Your task to perform on an android device: Is it going to rain this weekend? Image 0: 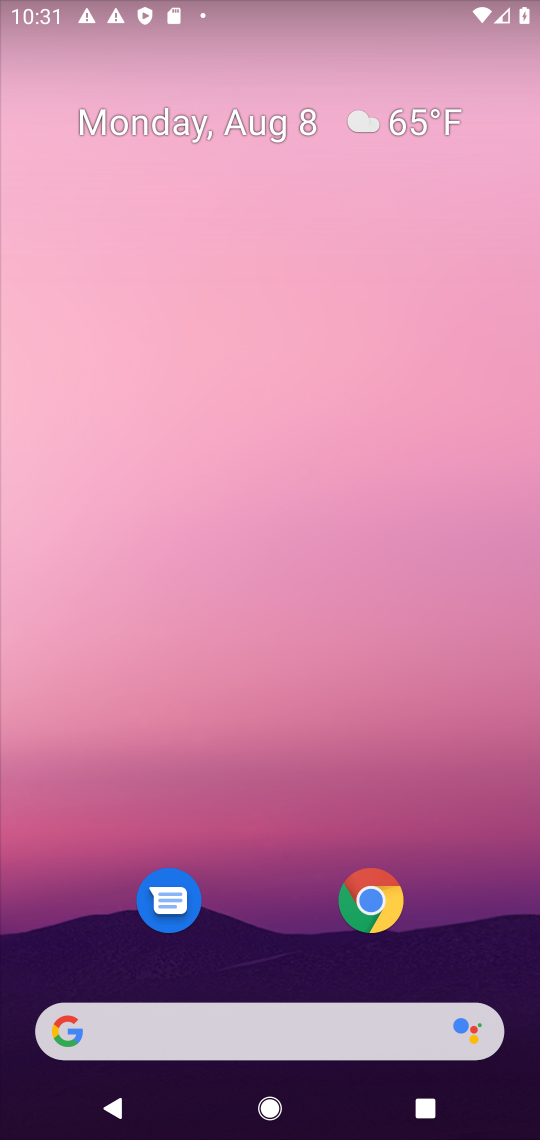
Step 0: click (190, 1043)
Your task to perform on an android device: Is it going to rain this weekend? Image 1: 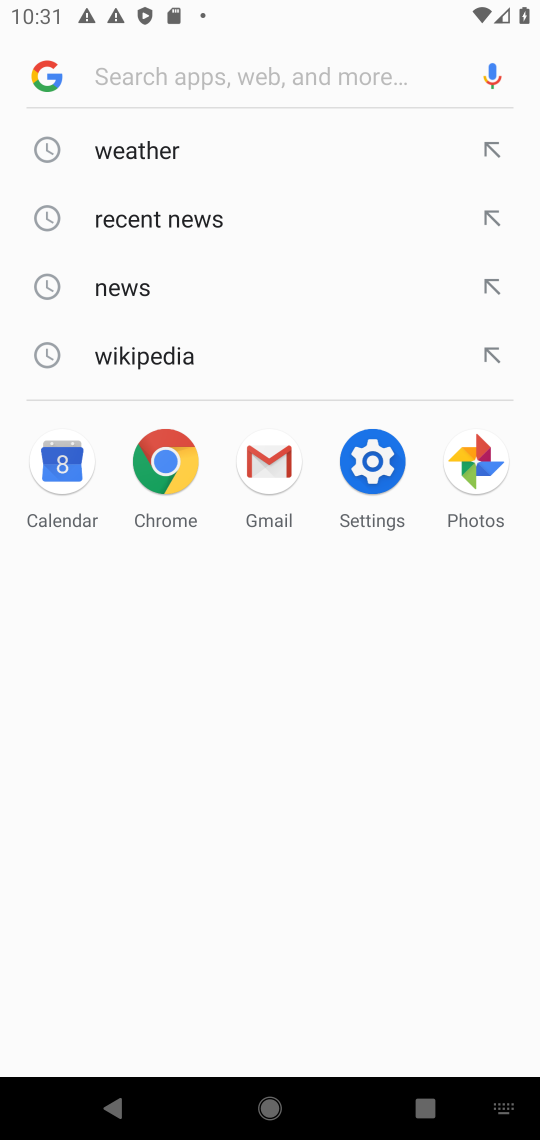
Step 1: click (121, 149)
Your task to perform on an android device: Is it going to rain this weekend? Image 2: 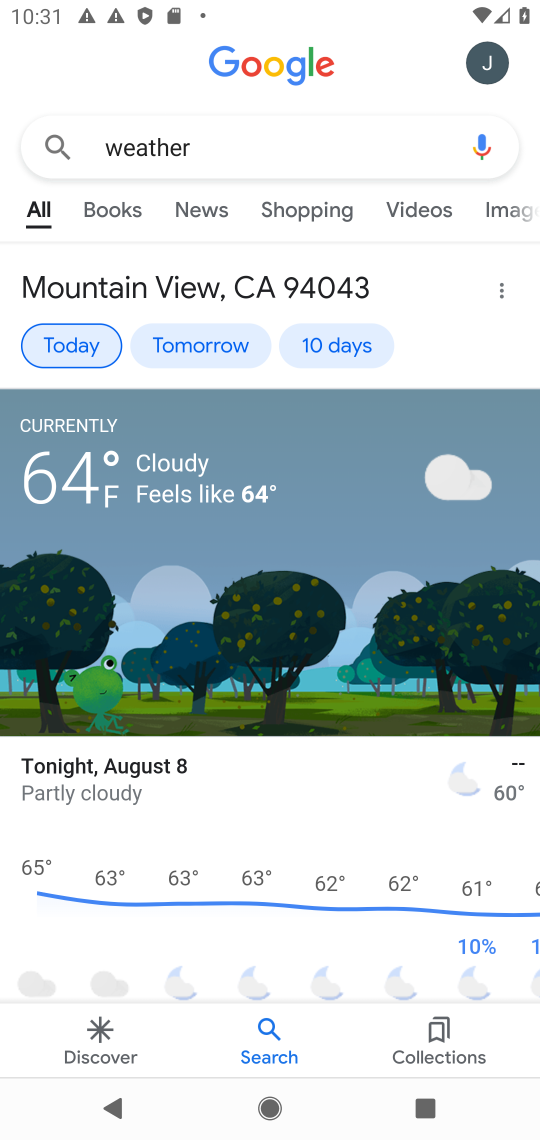
Step 2: click (326, 345)
Your task to perform on an android device: Is it going to rain this weekend? Image 3: 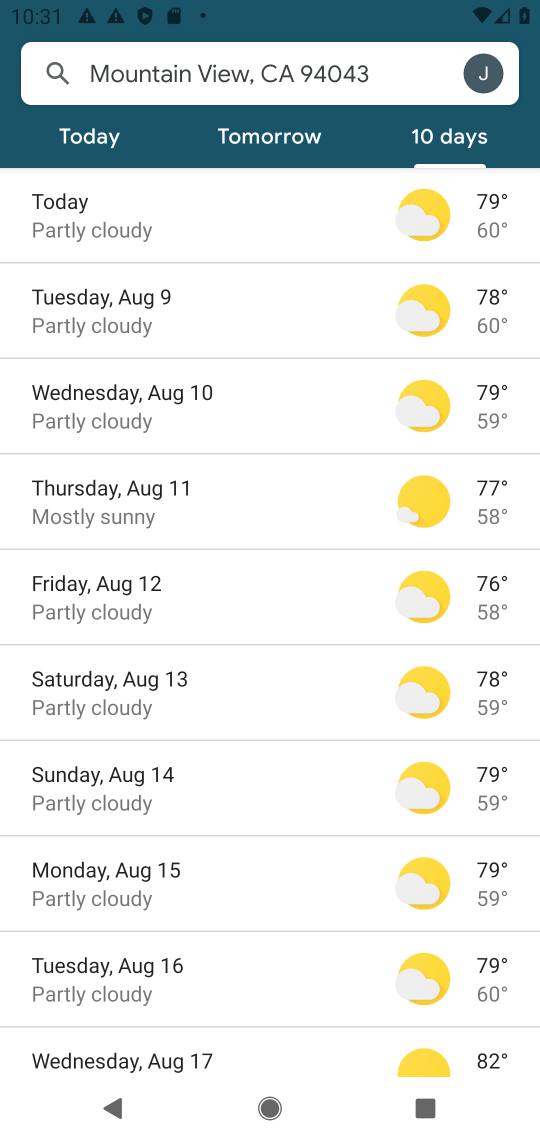
Step 3: task complete